Your task to perform on an android device: turn on airplane mode Image 0: 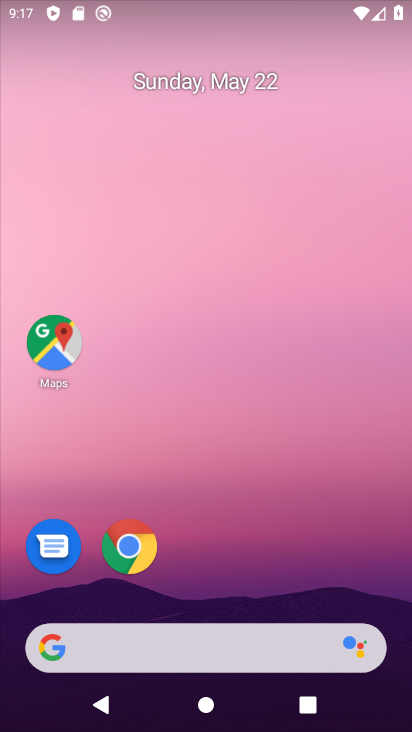
Step 0: drag from (208, 641) to (188, 27)
Your task to perform on an android device: turn on airplane mode Image 1: 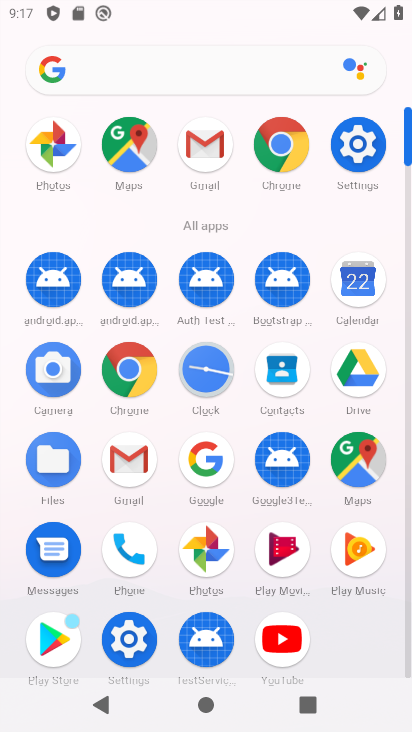
Step 1: click (359, 167)
Your task to perform on an android device: turn on airplane mode Image 2: 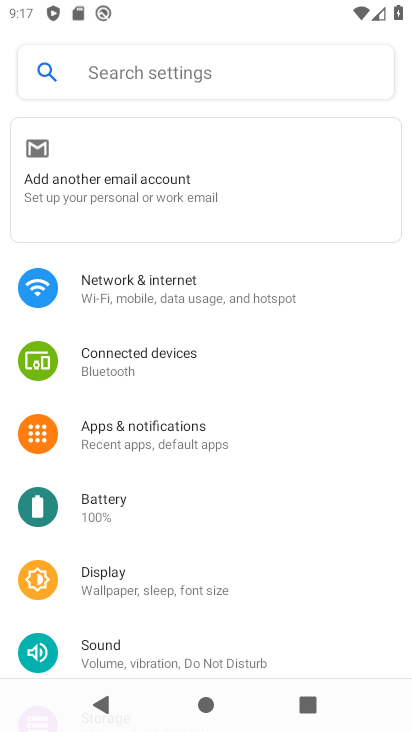
Step 2: click (135, 165)
Your task to perform on an android device: turn on airplane mode Image 3: 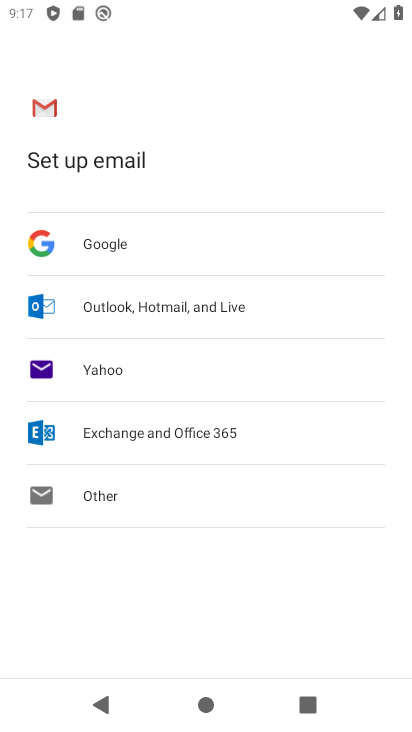
Step 3: press home button
Your task to perform on an android device: turn on airplane mode Image 4: 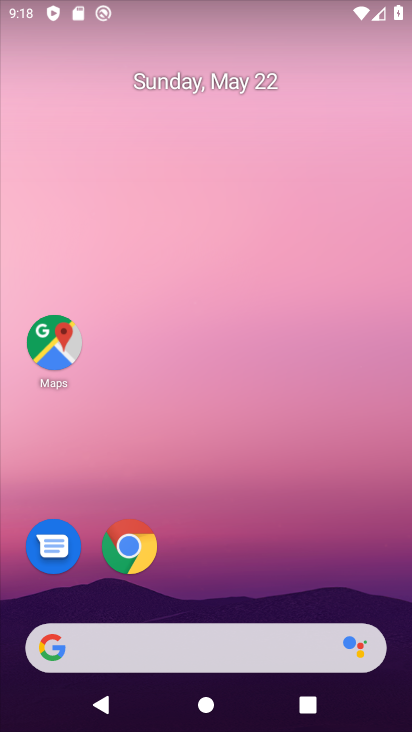
Step 4: drag from (168, 631) to (175, 27)
Your task to perform on an android device: turn on airplane mode Image 5: 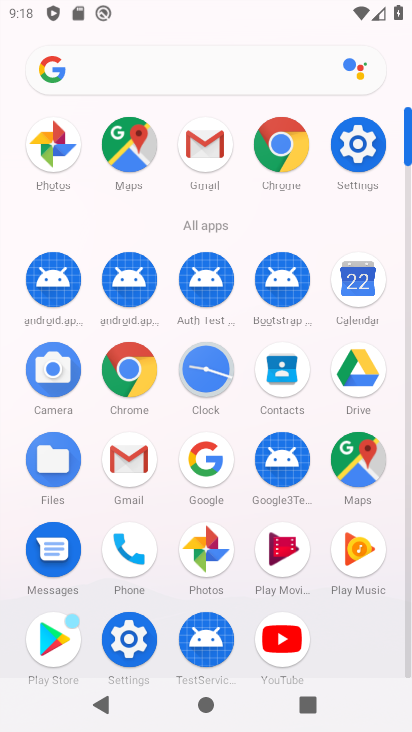
Step 5: click (367, 126)
Your task to perform on an android device: turn on airplane mode Image 6: 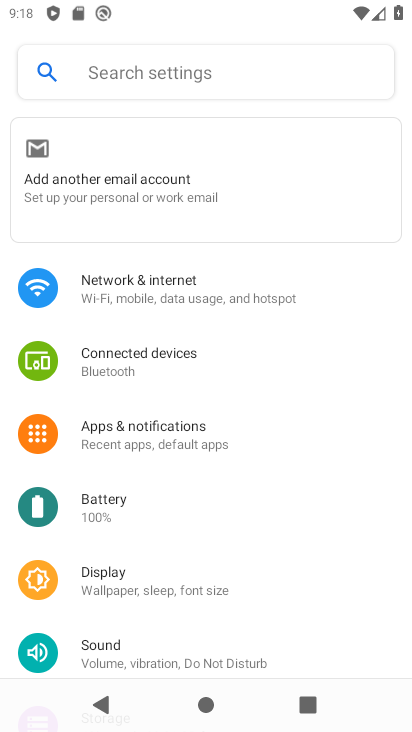
Step 6: click (163, 283)
Your task to perform on an android device: turn on airplane mode Image 7: 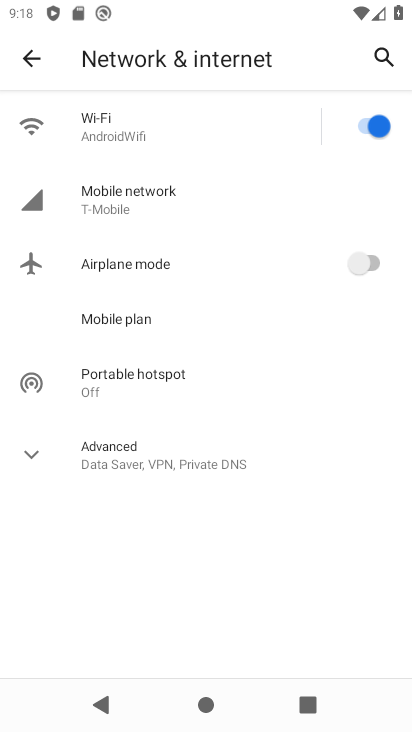
Step 7: click (358, 263)
Your task to perform on an android device: turn on airplane mode Image 8: 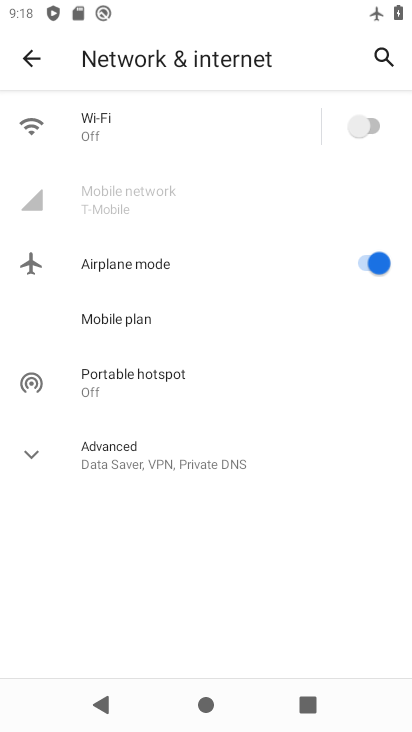
Step 8: task complete